Your task to perform on an android device: Open the calendar app, open the side menu, and click the "Day" option Image 0: 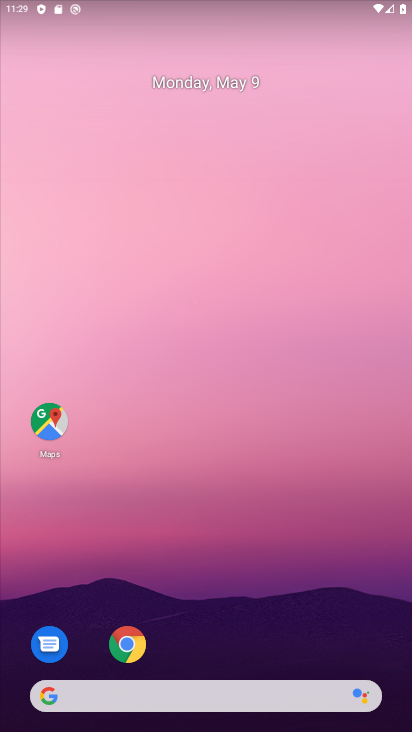
Step 0: drag from (30, 129) to (233, 111)
Your task to perform on an android device: Open the calendar app, open the side menu, and click the "Day" option Image 1: 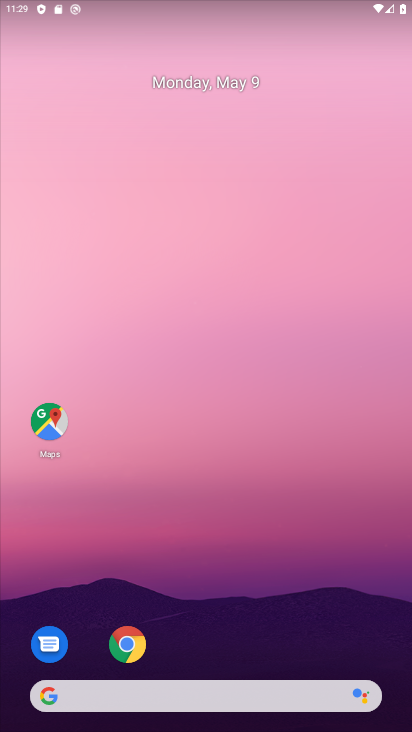
Step 1: drag from (69, 397) to (263, 0)
Your task to perform on an android device: Open the calendar app, open the side menu, and click the "Day" option Image 2: 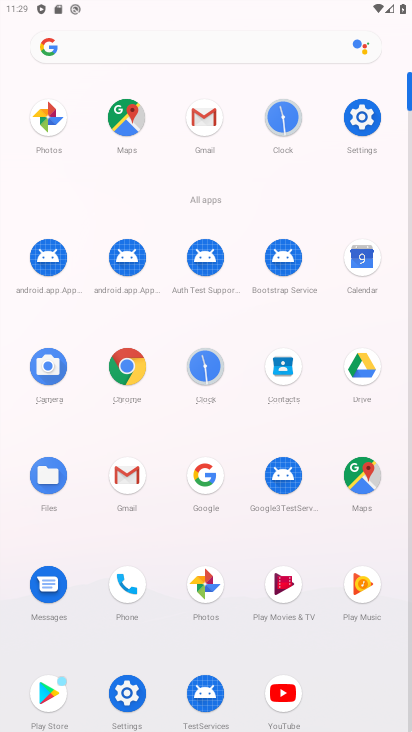
Step 2: click (371, 255)
Your task to perform on an android device: Open the calendar app, open the side menu, and click the "Day" option Image 3: 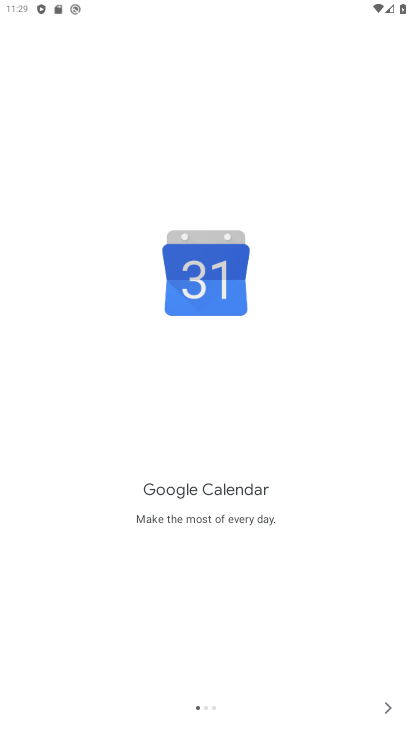
Step 3: click (384, 708)
Your task to perform on an android device: Open the calendar app, open the side menu, and click the "Day" option Image 4: 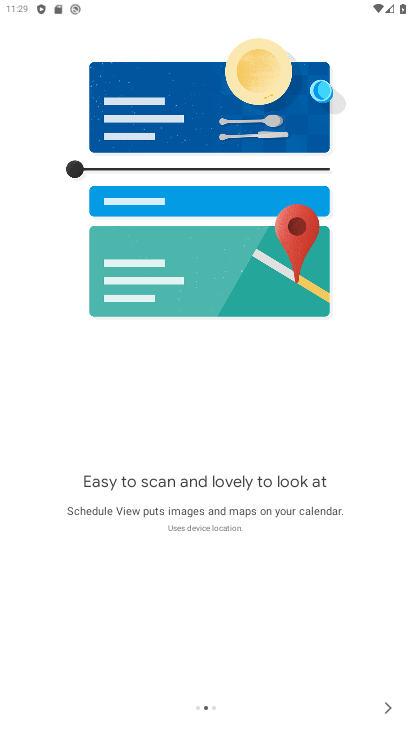
Step 4: click (384, 704)
Your task to perform on an android device: Open the calendar app, open the side menu, and click the "Day" option Image 5: 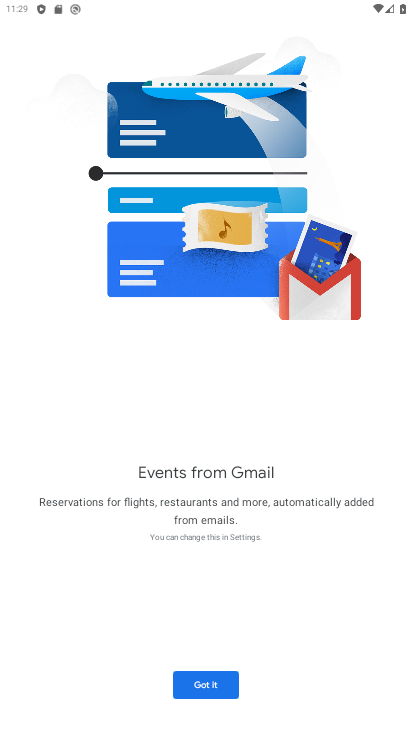
Step 5: click (227, 678)
Your task to perform on an android device: Open the calendar app, open the side menu, and click the "Day" option Image 6: 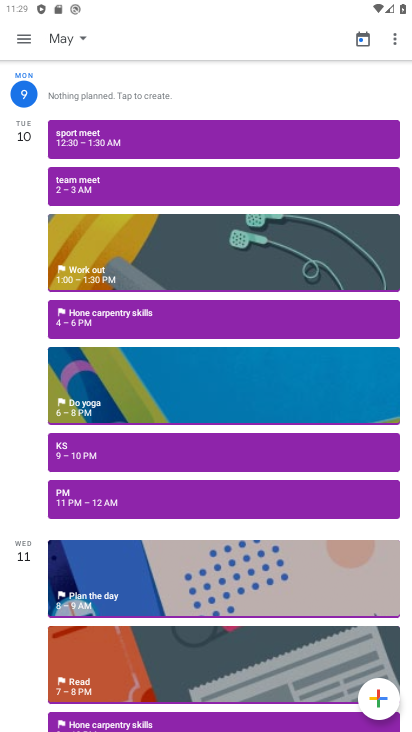
Step 6: click (14, 36)
Your task to perform on an android device: Open the calendar app, open the side menu, and click the "Day" option Image 7: 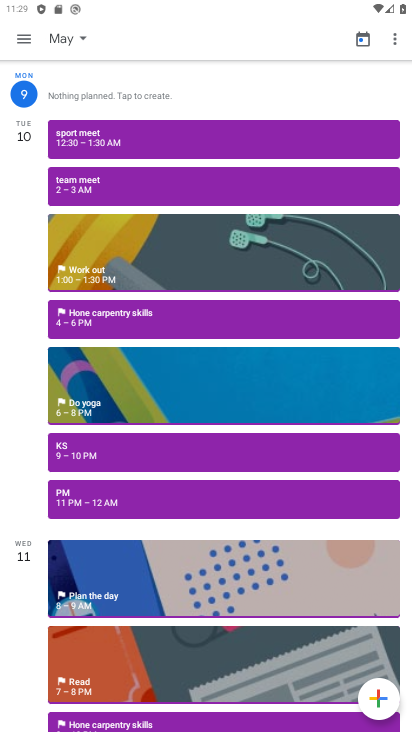
Step 7: click (25, 35)
Your task to perform on an android device: Open the calendar app, open the side menu, and click the "Day" option Image 8: 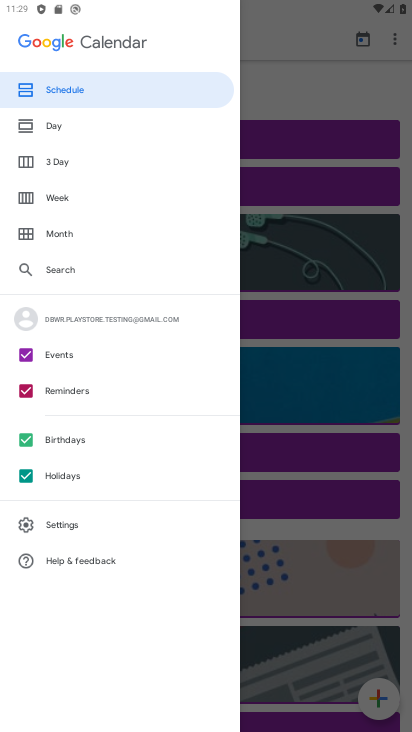
Step 8: click (45, 127)
Your task to perform on an android device: Open the calendar app, open the side menu, and click the "Day" option Image 9: 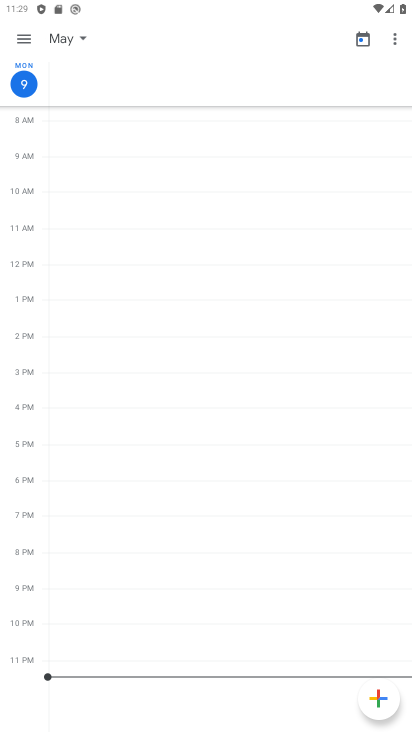
Step 9: task complete